Your task to perform on an android device: toggle notification dots Image 0: 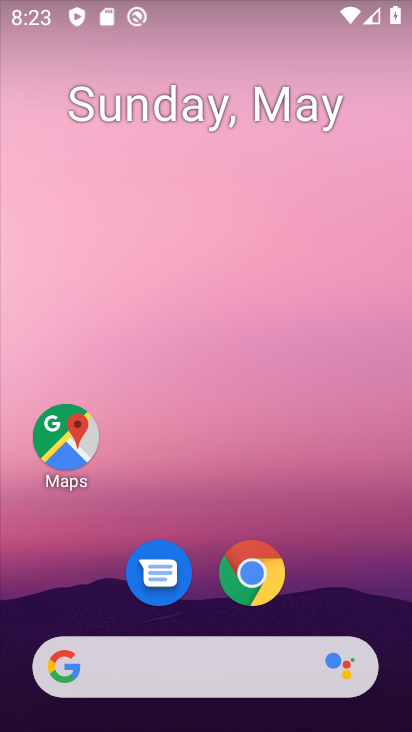
Step 0: drag from (350, 616) to (292, 160)
Your task to perform on an android device: toggle notification dots Image 1: 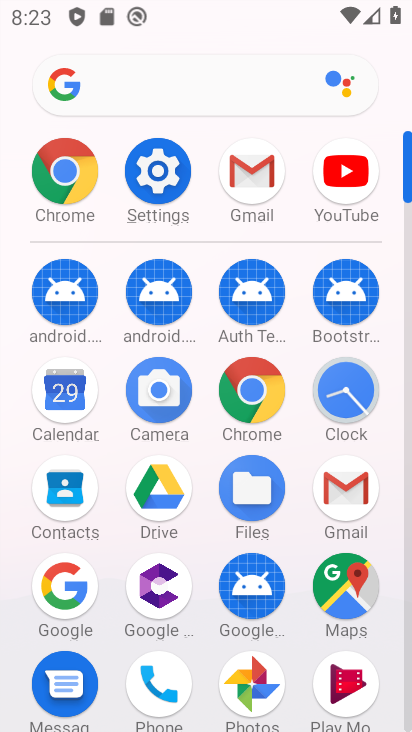
Step 1: click (152, 174)
Your task to perform on an android device: toggle notification dots Image 2: 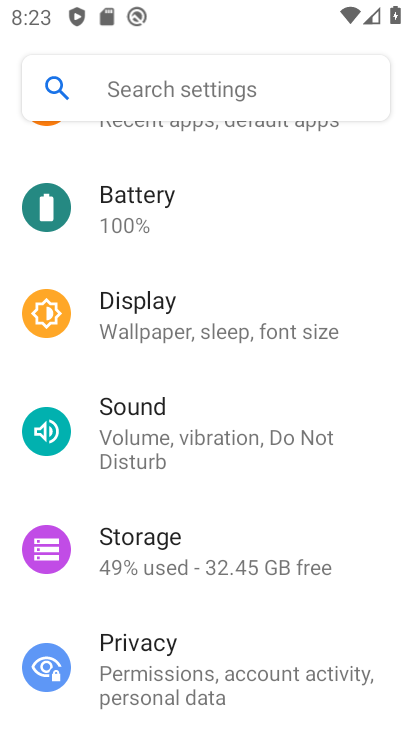
Step 2: drag from (182, 162) to (178, 582)
Your task to perform on an android device: toggle notification dots Image 3: 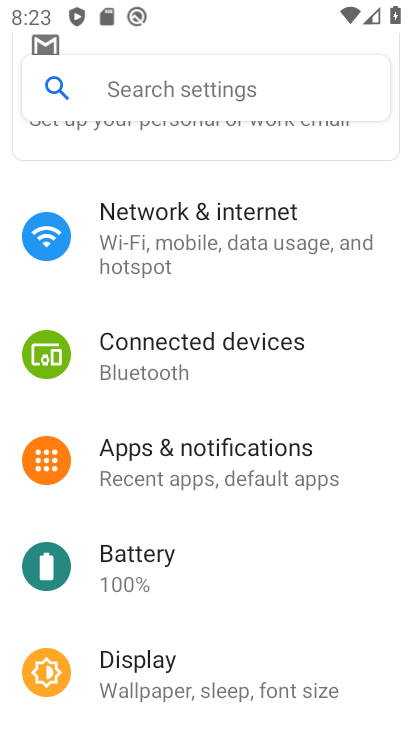
Step 3: click (194, 459)
Your task to perform on an android device: toggle notification dots Image 4: 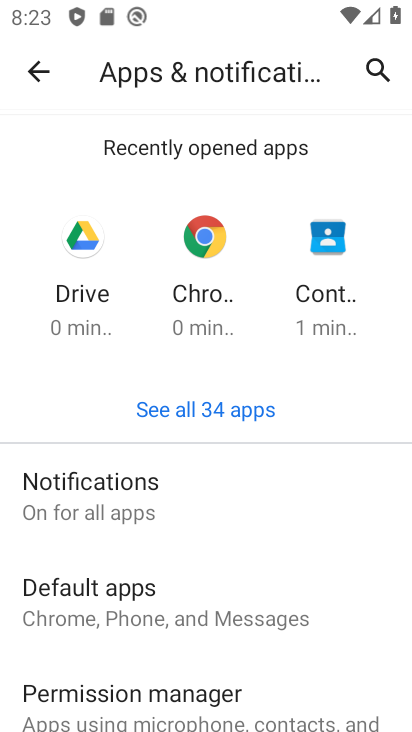
Step 4: click (199, 519)
Your task to perform on an android device: toggle notification dots Image 5: 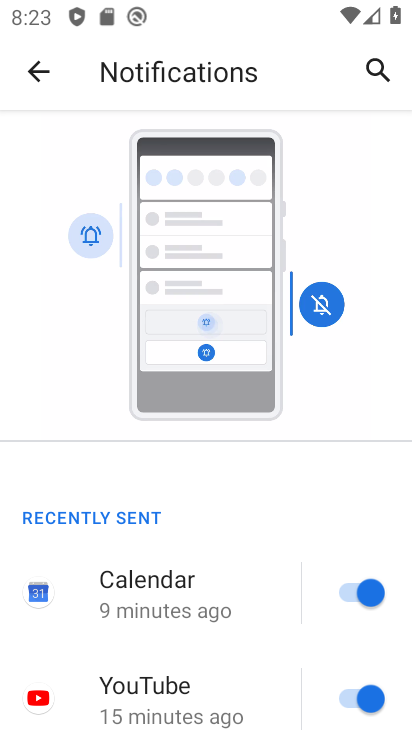
Step 5: drag from (234, 649) to (237, 197)
Your task to perform on an android device: toggle notification dots Image 6: 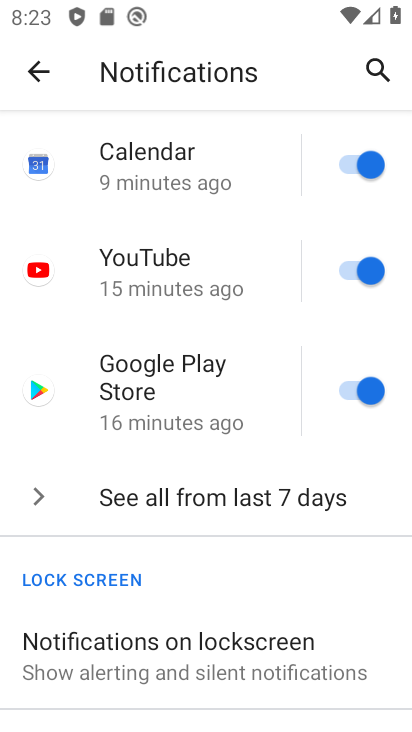
Step 6: drag from (223, 585) to (246, 319)
Your task to perform on an android device: toggle notification dots Image 7: 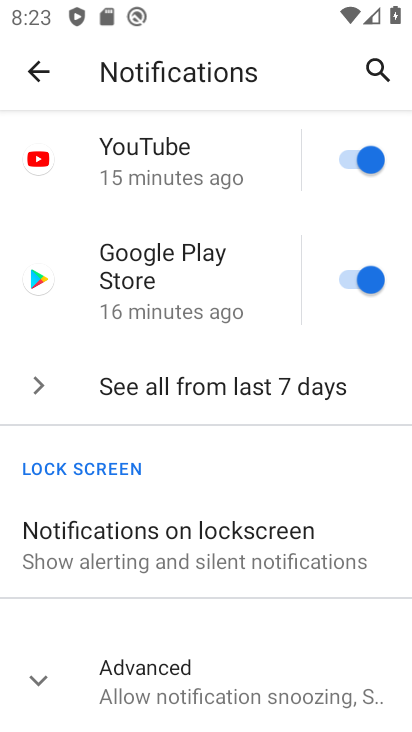
Step 7: click (287, 678)
Your task to perform on an android device: toggle notification dots Image 8: 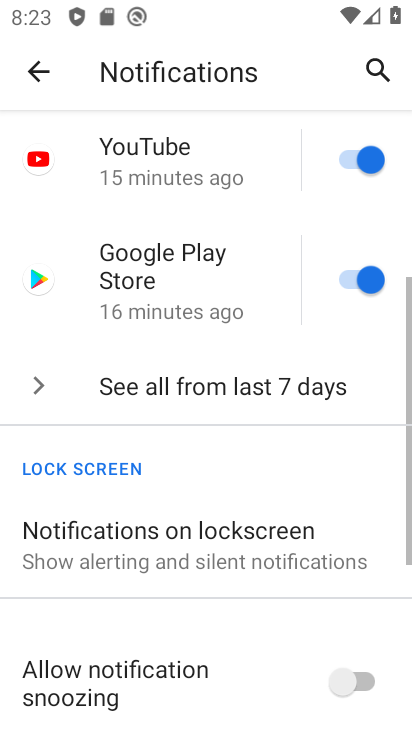
Step 8: drag from (287, 678) to (310, 287)
Your task to perform on an android device: toggle notification dots Image 9: 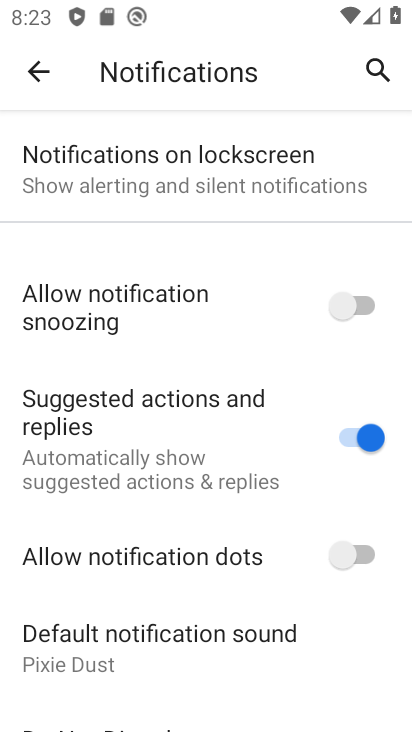
Step 9: click (343, 579)
Your task to perform on an android device: toggle notification dots Image 10: 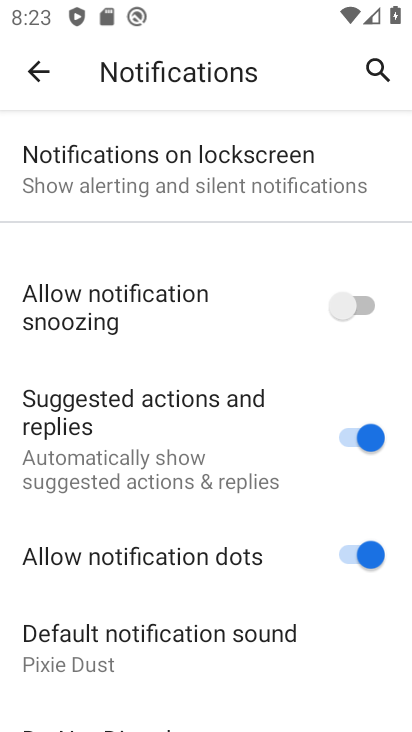
Step 10: task complete